Your task to perform on an android device: open wifi settings Image 0: 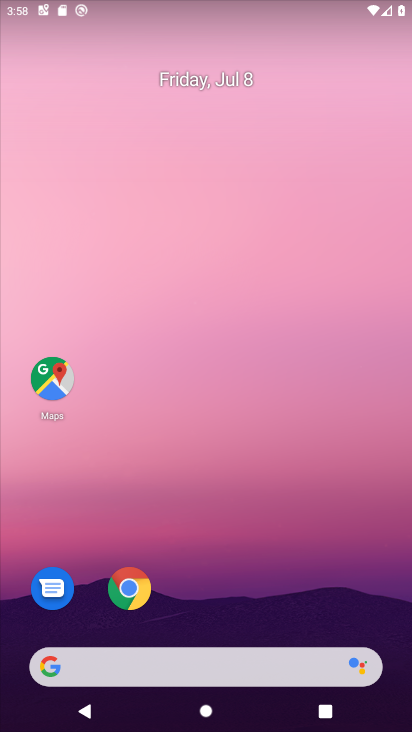
Step 0: drag from (180, 603) to (406, 76)
Your task to perform on an android device: open wifi settings Image 1: 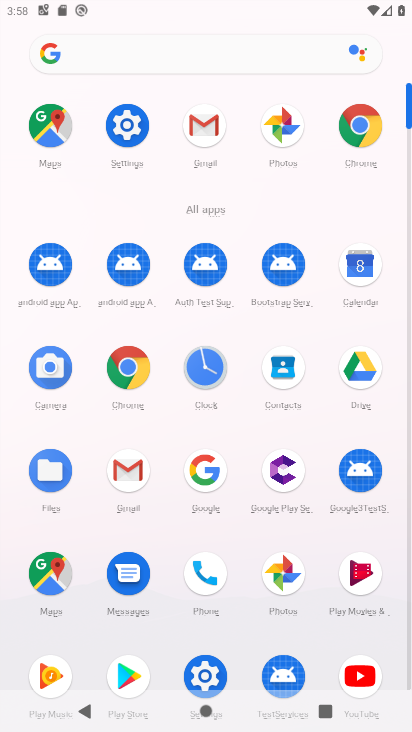
Step 1: click (216, 674)
Your task to perform on an android device: open wifi settings Image 2: 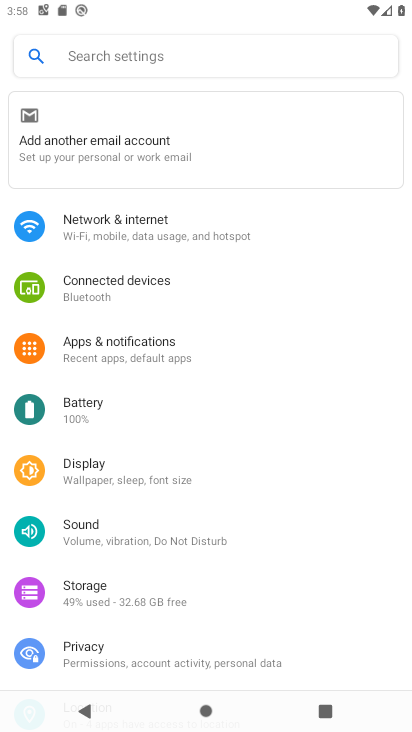
Step 2: drag from (150, 493) to (179, 218)
Your task to perform on an android device: open wifi settings Image 3: 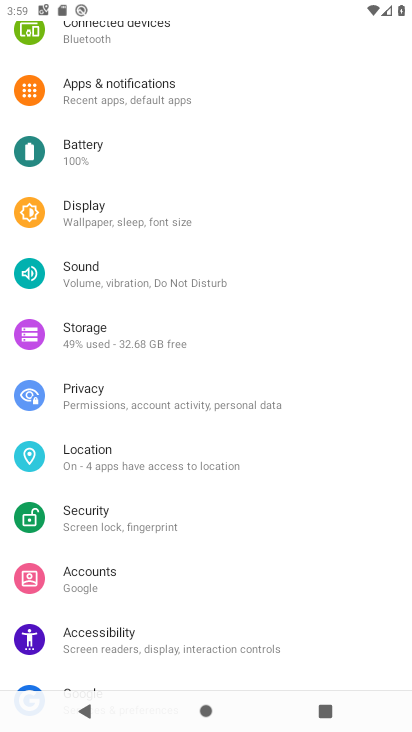
Step 3: drag from (111, 157) to (122, 486)
Your task to perform on an android device: open wifi settings Image 4: 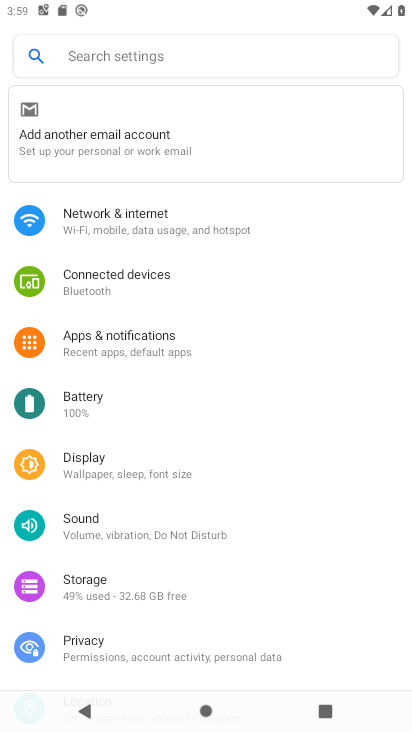
Step 4: click (136, 208)
Your task to perform on an android device: open wifi settings Image 5: 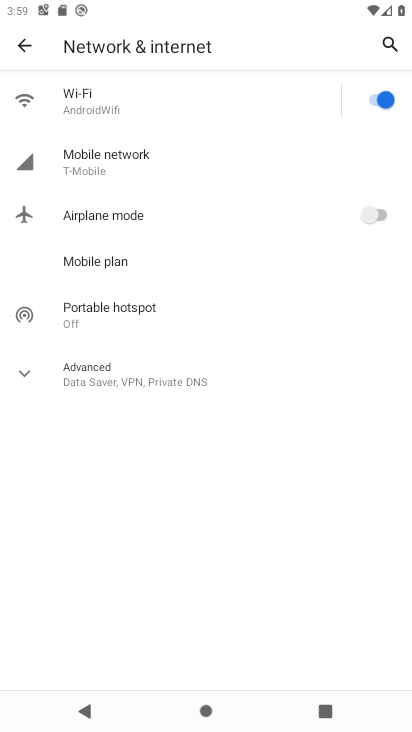
Step 5: click (160, 104)
Your task to perform on an android device: open wifi settings Image 6: 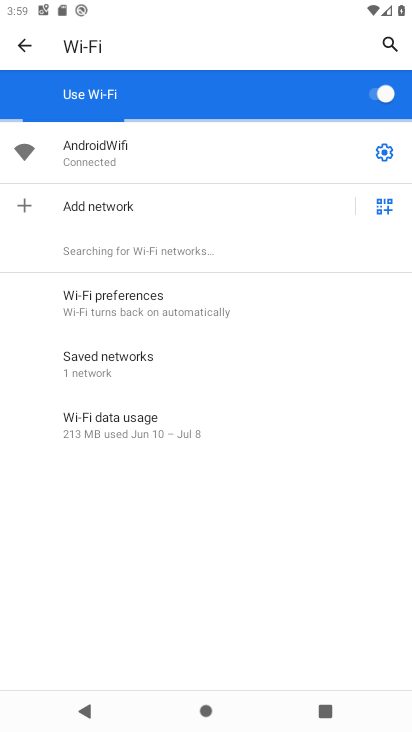
Step 6: task complete